Your task to perform on an android device: change the clock style Image 0: 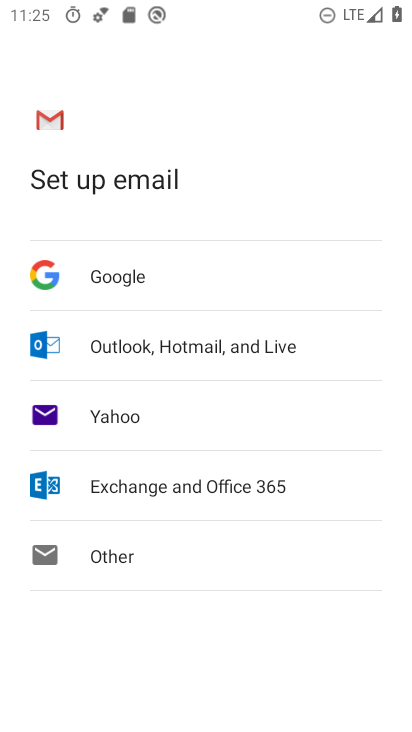
Step 0: click (293, 690)
Your task to perform on an android device: change the clock style Image 1: 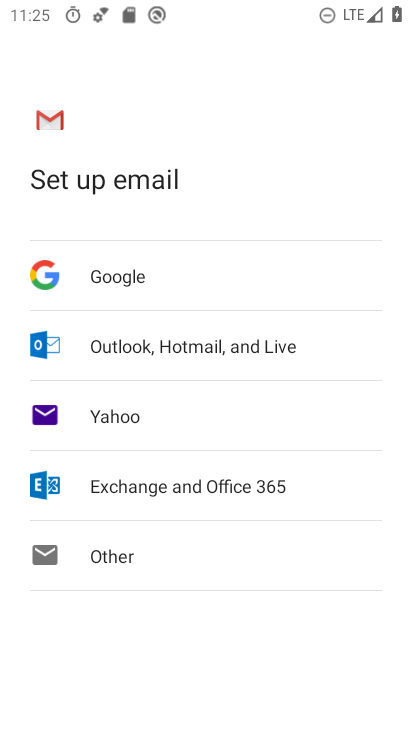
Step 1: press home button
Your task to perform on an android device: change the clock style Image 2: 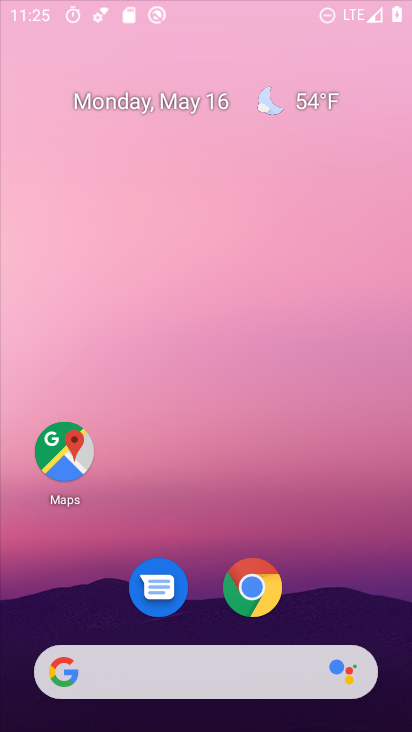
Step 2: drag from (194, 641) to (266, 26)
Your task to perform on an android device: change the clock style Image 3: 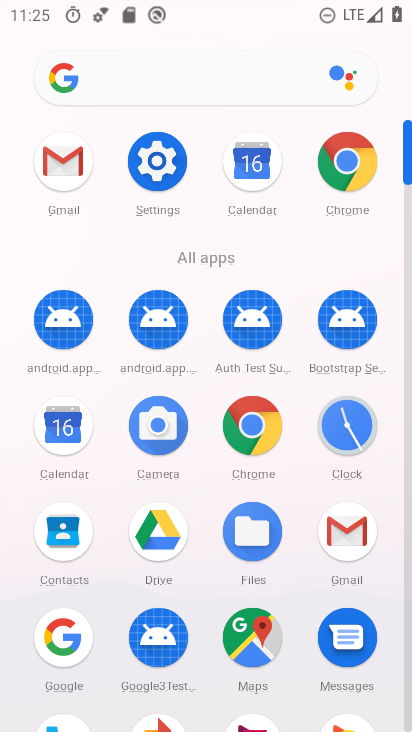
Step 3: click (366, 437)
Your task to perform on an android device: change the clock style Image 4: 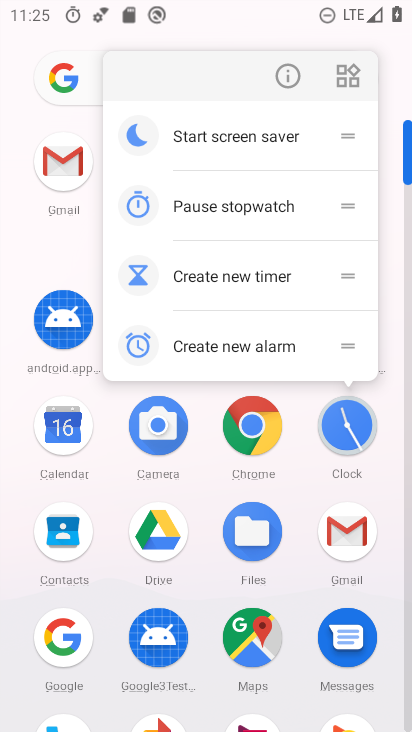
Step 4: click (294, 86)
Your task to perform on an android device: change the clock style Image 5: 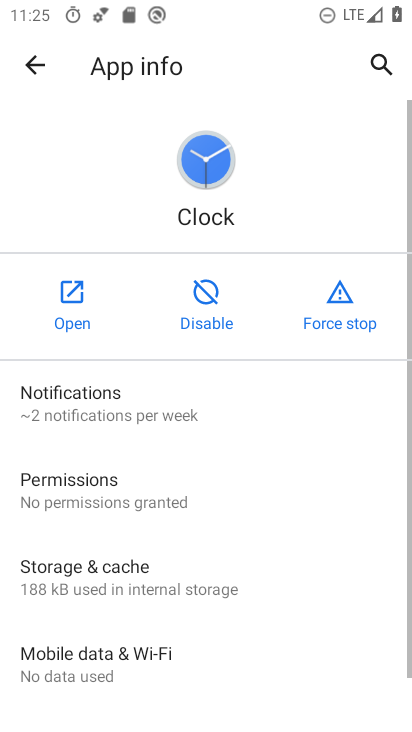
Step 5: click (75, 318)
Your task to perform on an android device: change the clock style Image 6: 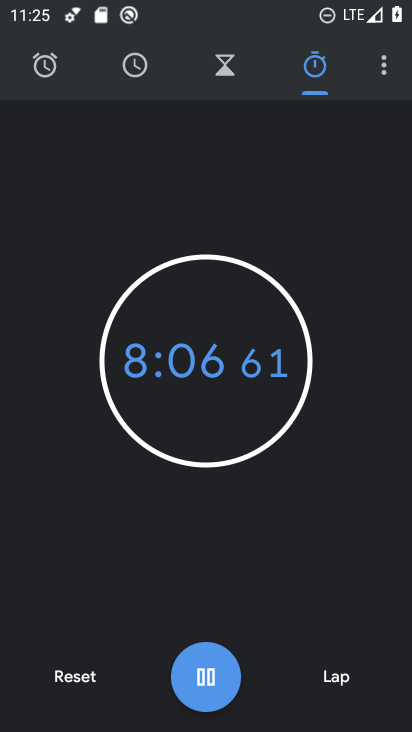
Step 6: click (374, 62)
Your task to perform on an android device: change the clock style Image 7: 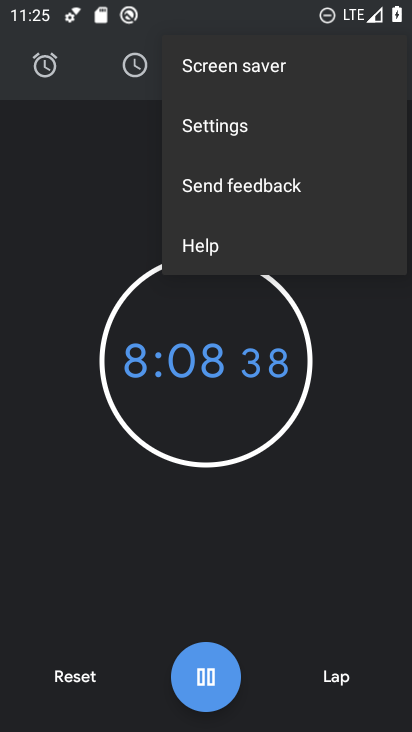
Step 7: click (243, 119)
Your task to perform on an android device: change the clock style Image 8: 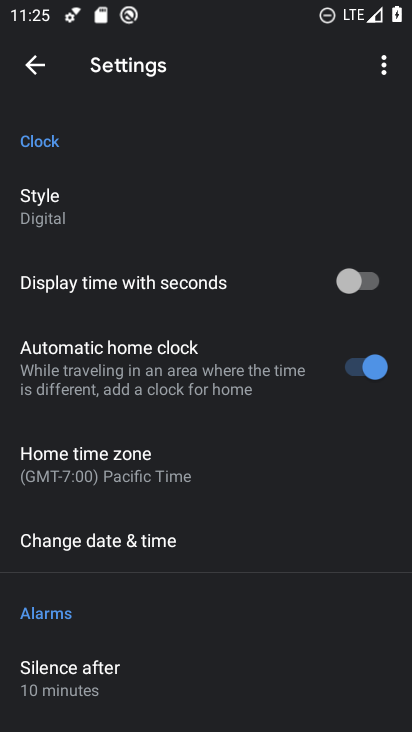
Step 8: click (80, 217)
Your task to perform on an android device: change the clock style Image 9: 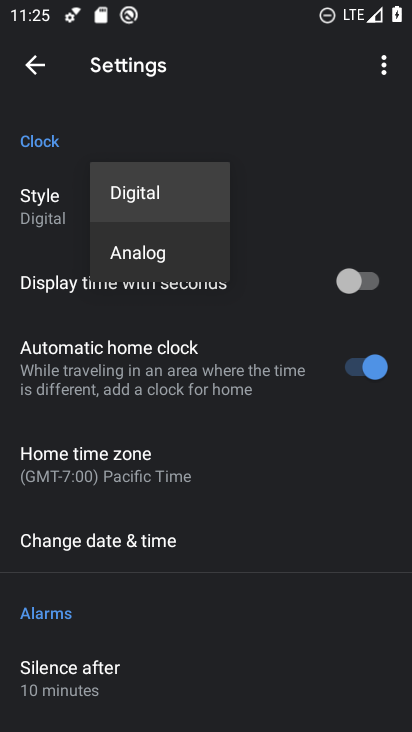
Step 9: click (148, 226)
Your task to perform on an android device: change the clock style Image 10: 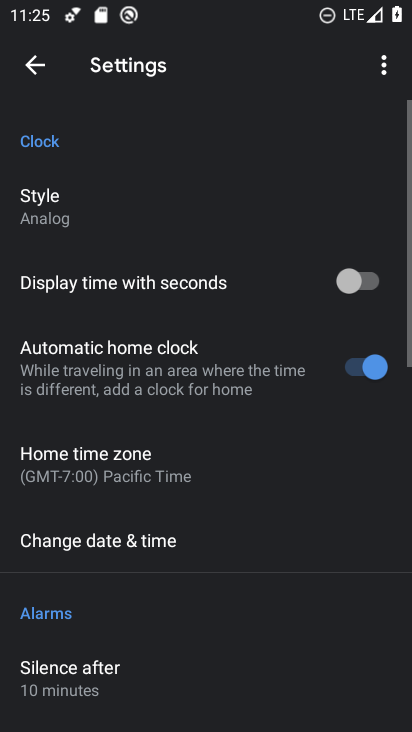
Step 10: task complete